Your task to perform on an android device: What's the weather going to be this weekend? Image 0: 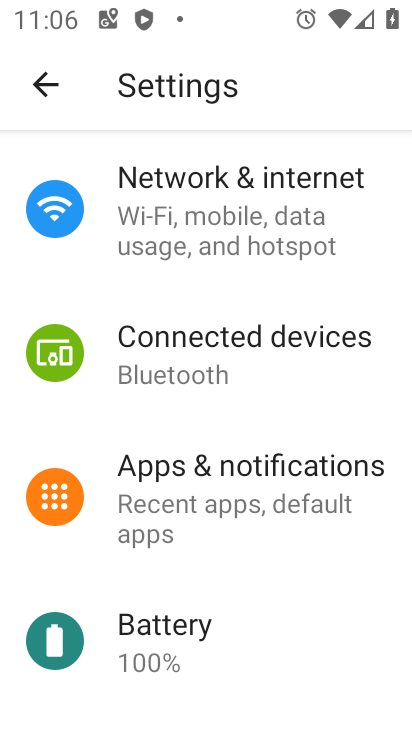
Step 0: press home button
Your task to perform on an android device: What's the weather going to be this weekend? Image 1: 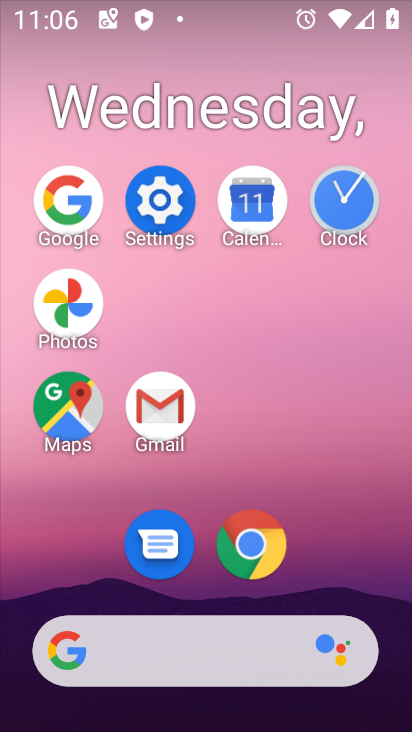
Step 1: click (77, 210)
Your task to perform on an android device: What's the weather going to be this weekend? Image 2: 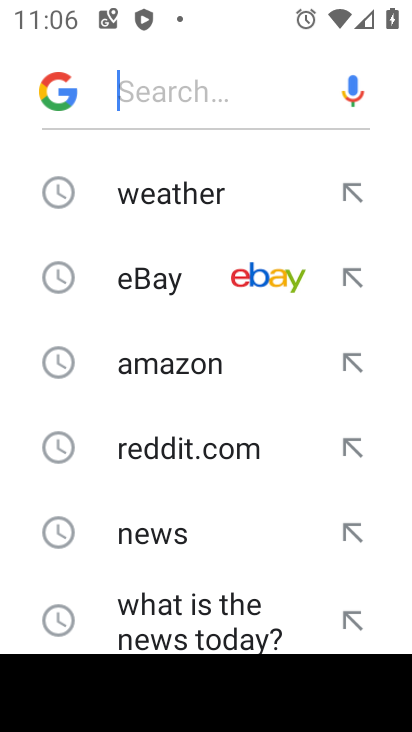
Step 2: click (128, 187)
Your task to perform on an android device: What's the weather going to be this weekend? Image 3: 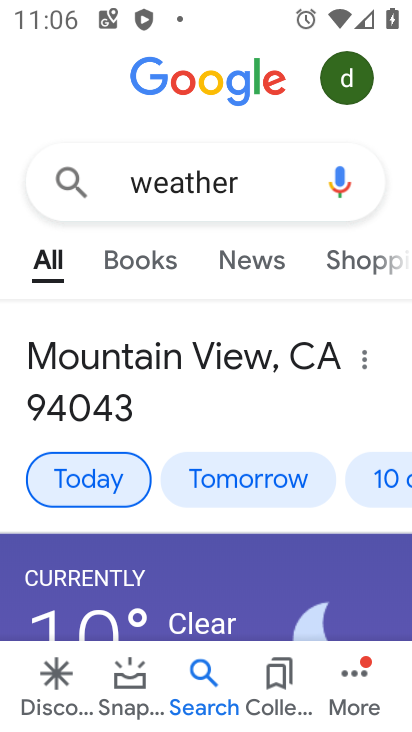
Step 3: click (387, 466)
Your task to perform on an android device: What's the weather going to be this weekend? Image 4: 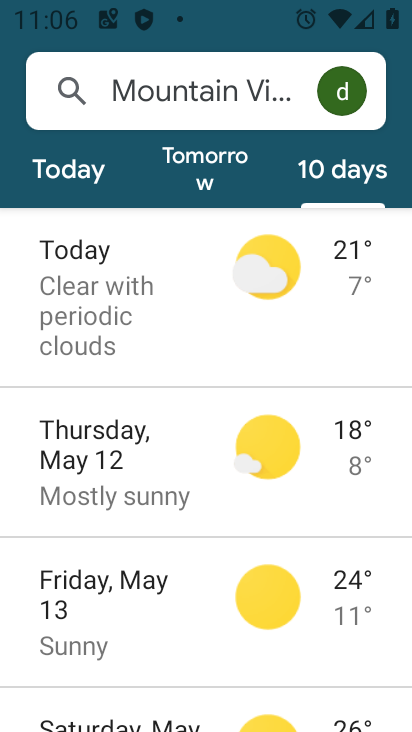
Step 4: click (136, 724)
Your task to perform on an android device: What's the weather going to be this weekend? Image 5: 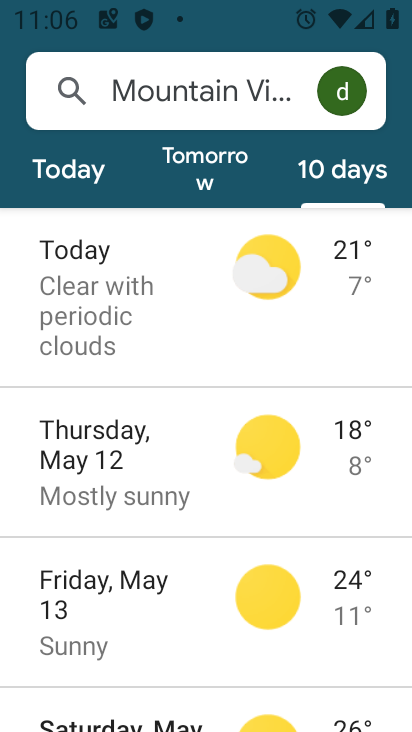
Step 5: click (129, 701)
Your task to perform on an android device: What's the weather going to be this weekend? Image 6: 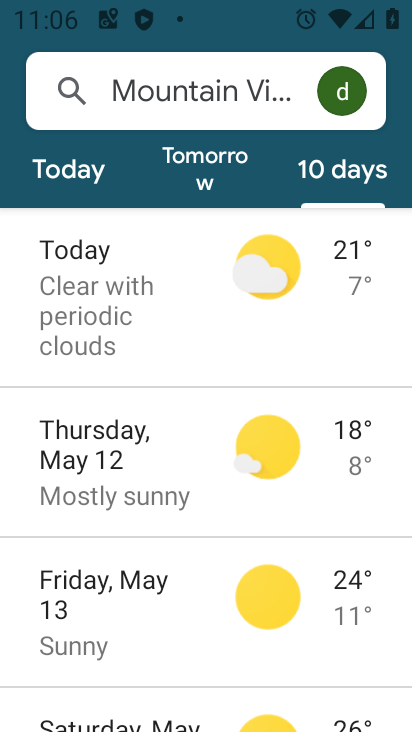
Step 6: drag from (217, 610) to (199, 280)
Your task to perform on an android device: What's the weather going to be this weekend? Image 7: 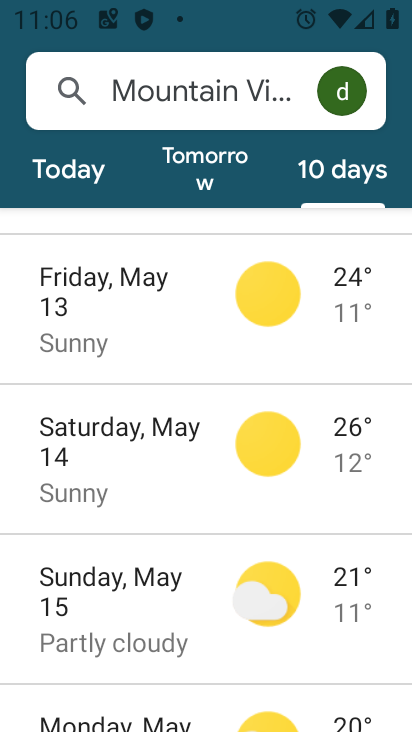
Step 7: click (148, 474)
Your task to perform on an android device: What's the weather going to be this weekend? Image 8: 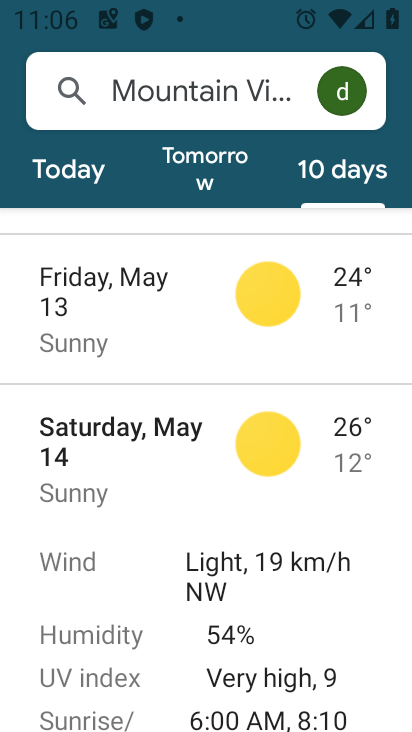
Step 8: task complete